Your task to perform on an android device: Go to Google maps Image 0: 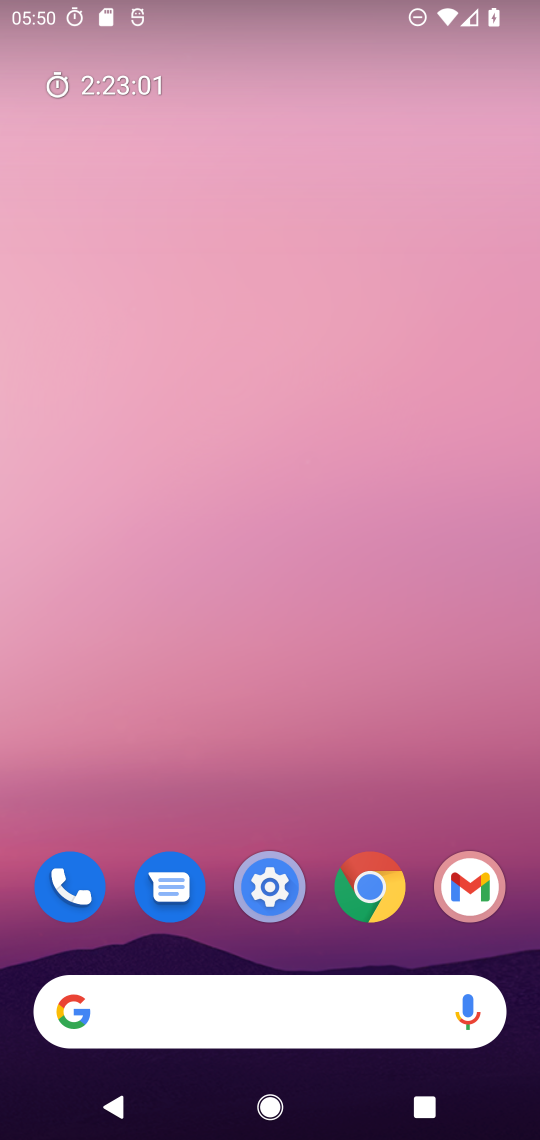
Step 0: press home button
Your task to perform on an android device: Go to Google maps Image 1: 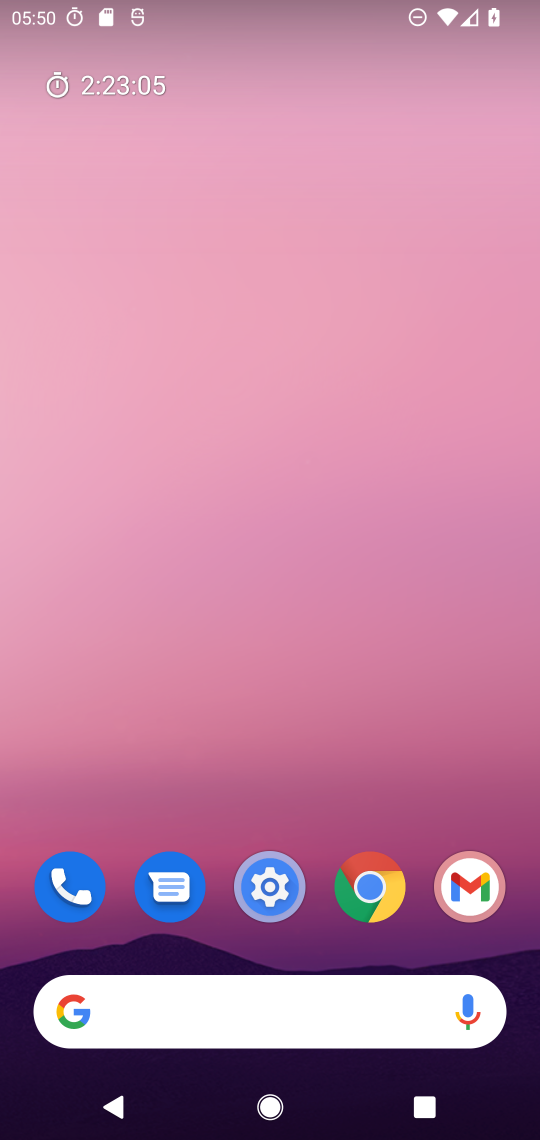
Step 1: drag from (299, 769) to (330, 263)
Your task to perform on an android device: Go to Google maps Image 2: 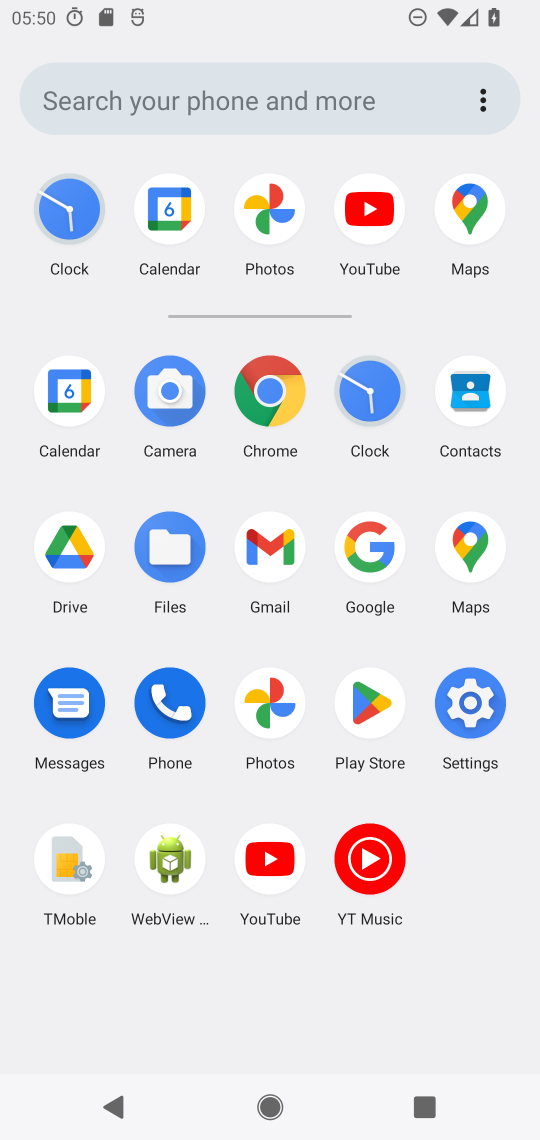
Step 2: click (461, 555)
Your task to perform on an android device: Go to Google maps Image 3: 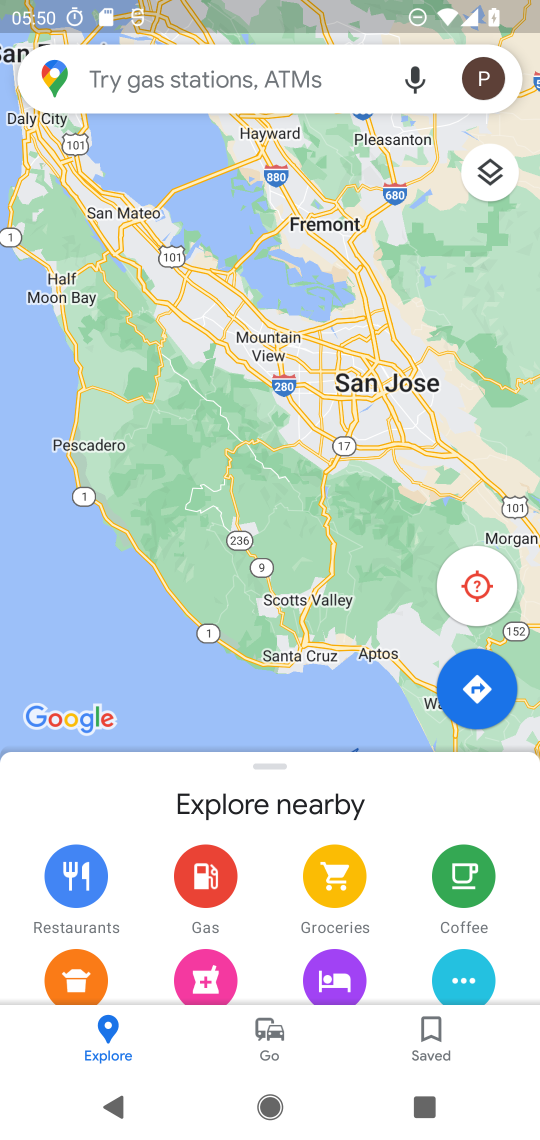
Step 3: task complete